Your task to perform on an android device: find snoozed emails in the gmail app Image 0: 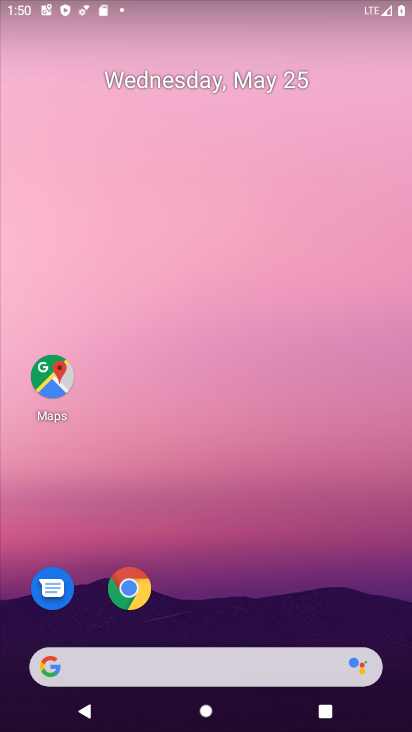
Step 0: drag from (277, 627) to (263, 0)
Your task to perform on an android device: find snoozed emails in the gmail app Image 1: 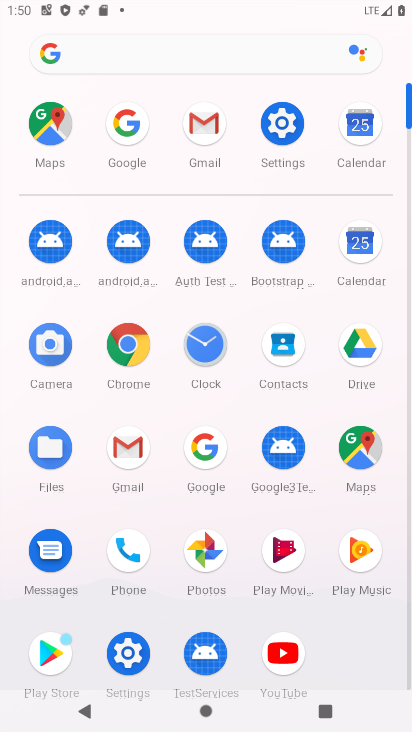
Step 1: click (195, 134)
Your task to perform on an android device: find snoozed emails in the gmail app Image 2: 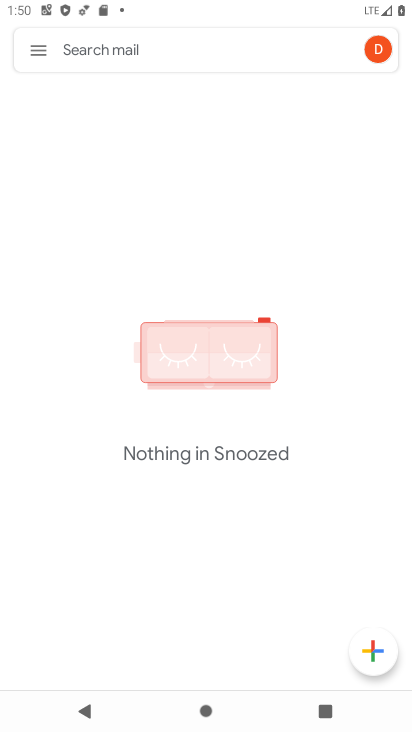
Step 2: task complete